Your task to perform on an android device: empty trash in google photos Image 0: 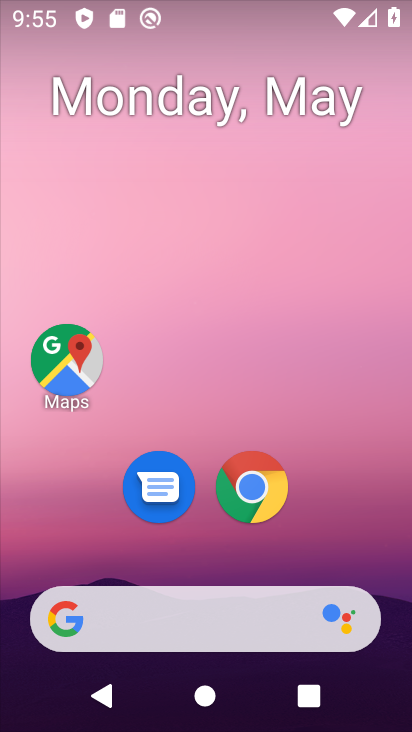
Step 0: drag from (220, 546) to (187, 24)
Your task to perform on an android device: empty trash in google photos Image 1: 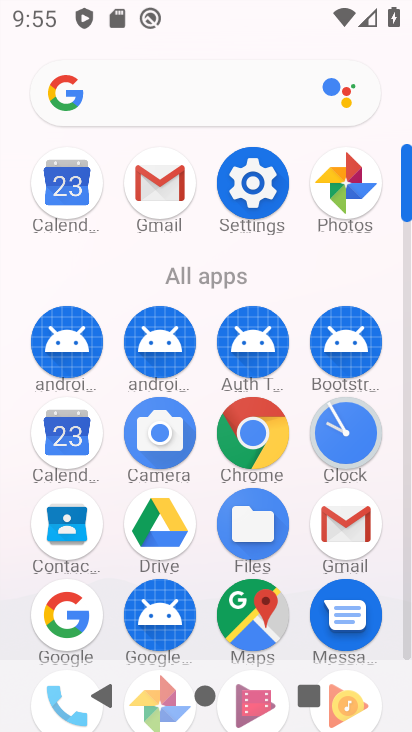
Step 1: drag from (213, 578) to (218, 198)
Your task to perform on an android device: empty trash in google photos Image 2: 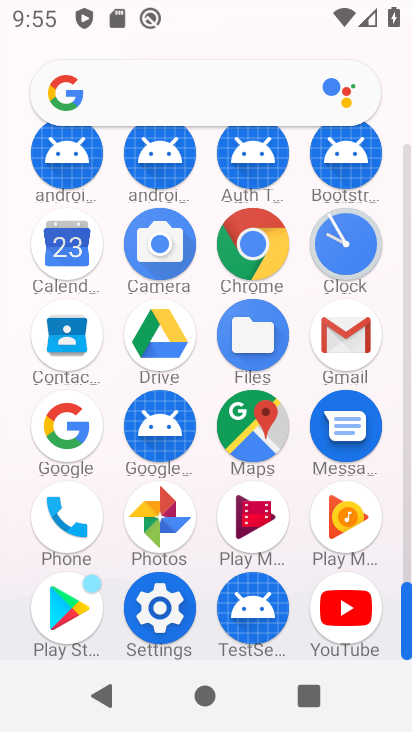
Step 2: click (173, 527)
Your task to perform on an android device: empty trash in google photos Image 3: 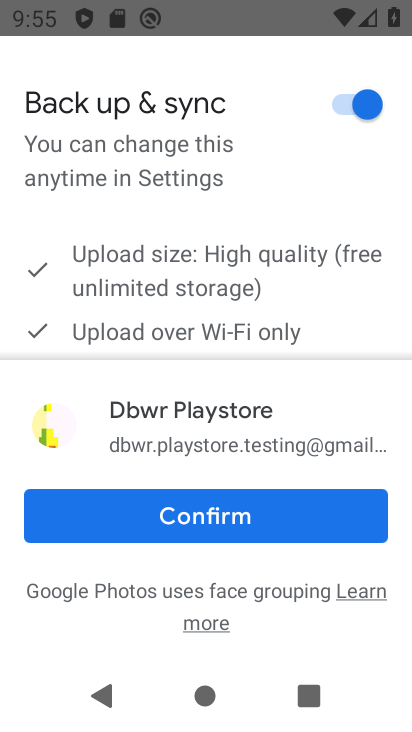
Step 3: click (197, 525)
Your task to perform on an android device: empty trash in google photos Image 4: 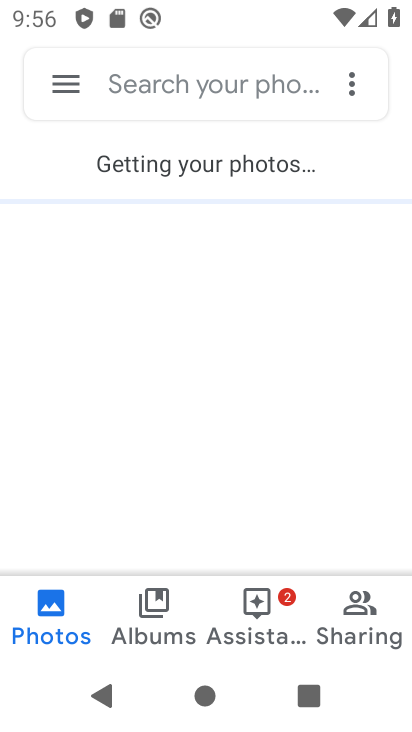
Step 4: click (72, 77)
Your task to perform on an android device: empty trash in google photos Image 5: 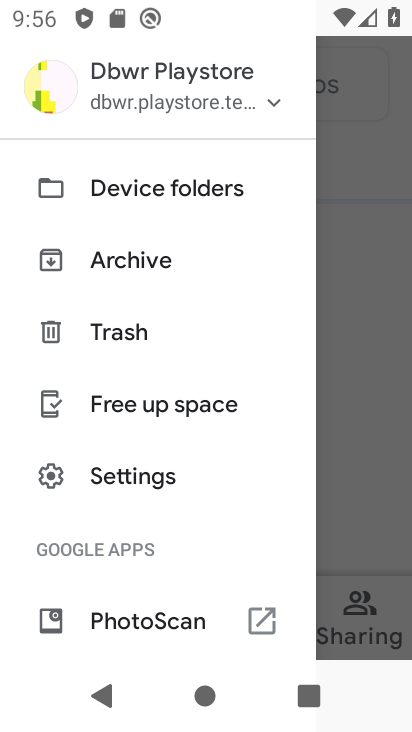
Step 5: click (97, 337)
Your task to perform on an android device: empty trash in google photos Image 6: 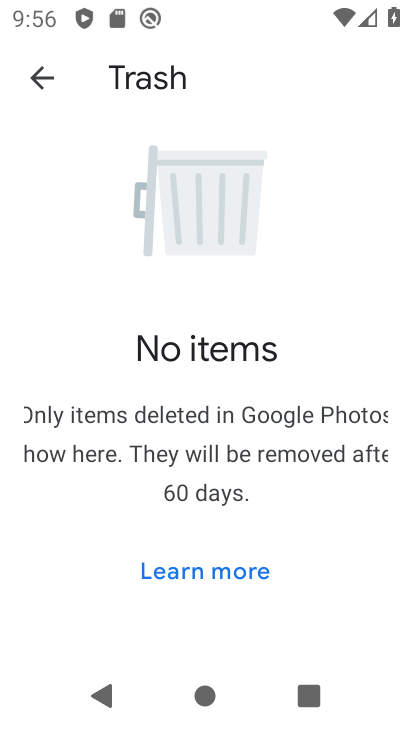
Step 6: task complete